Your task to perform on an android device: change notifications settings Image 0: 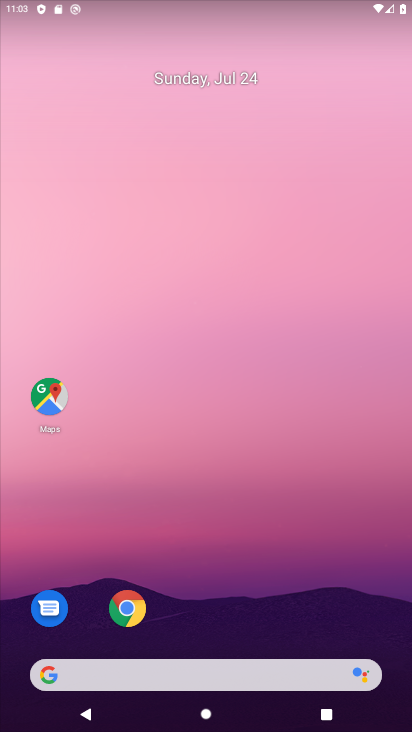
Step 0: drag from (244, 534) to (243, 0)
Your task to perform on an android device: change notifications settings Image 1: 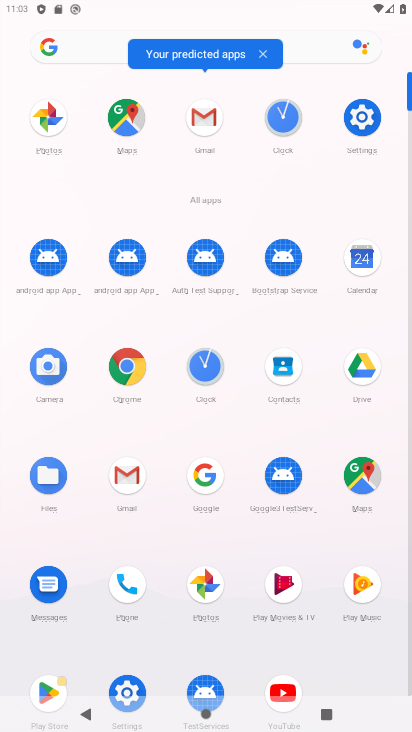
Step 1: click (363, 113)
Your task to perform on an android device: change notifications settings Image 2: 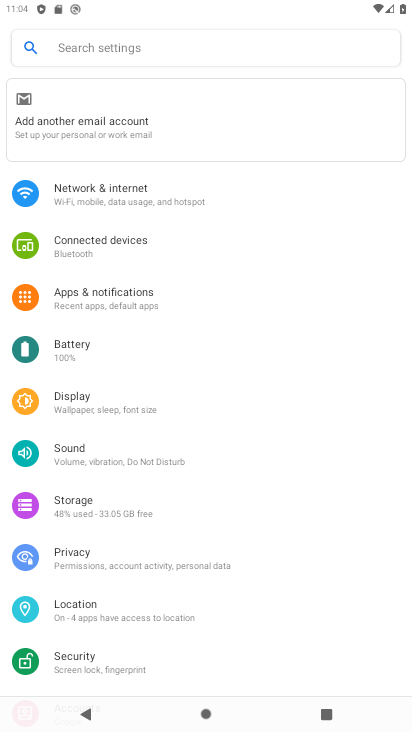
Step 2: click (85, 300)
Your task to perform on an android device: change notifications settings Image 3: 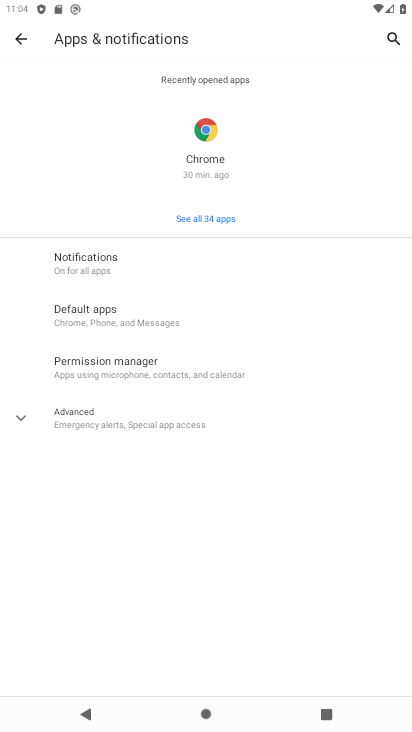
Step 3: click (60, 268)
Your task to perform on an android device: change notifications settings Image 4: 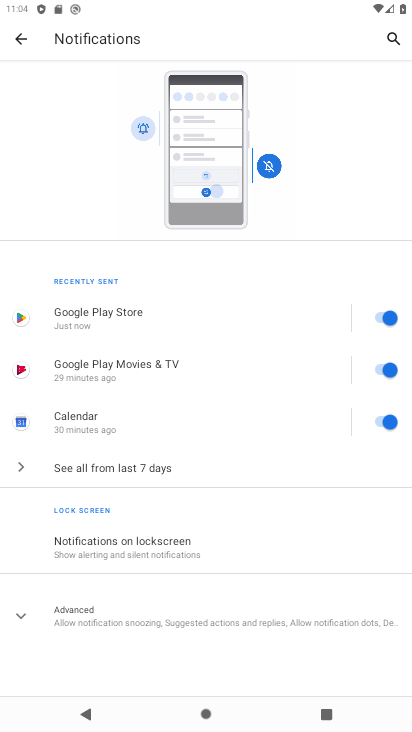
Step 4: click (116, 470)
Your task to perform on an android device: change notifications settings Image 5: 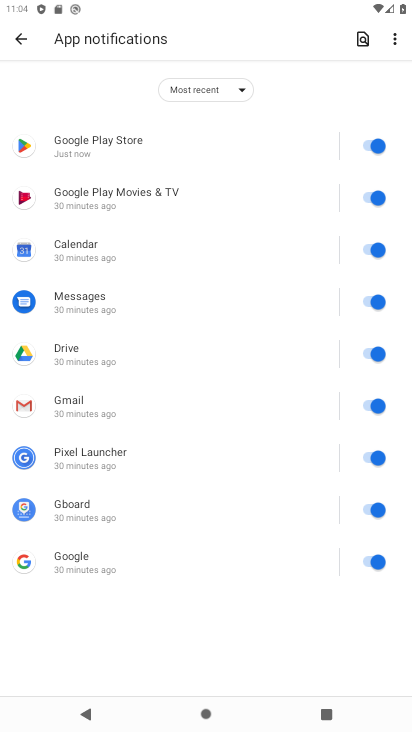
Step 5: click (243, 90)
Your task to perform on an android device: change notifications settings Image 6: 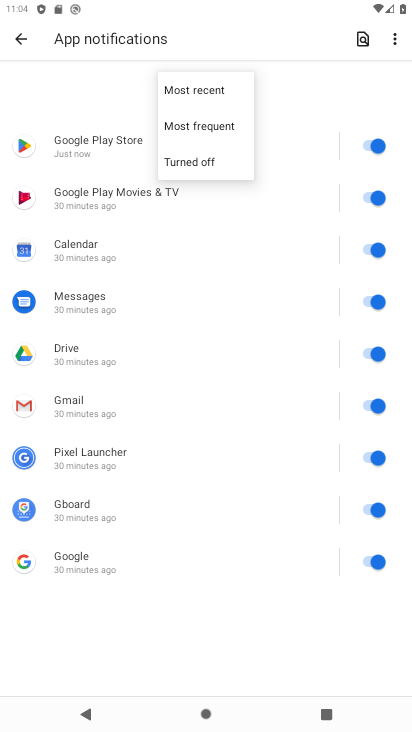
Step 6: click (207, 130)
Your task to perform on an android device: change notifications settings Image 7: 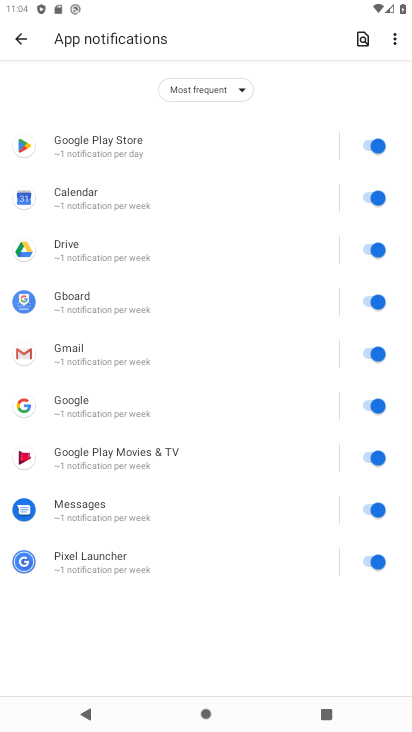
Step 7: task complete